Your task to perform on an android device: Open Google Chrome Image 0: 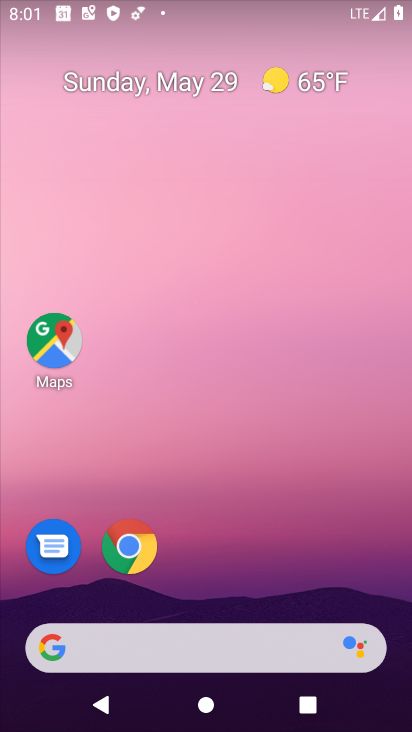
Step 0: press home button
Your task to perform on an android device: Open Google Chrome Image 1: 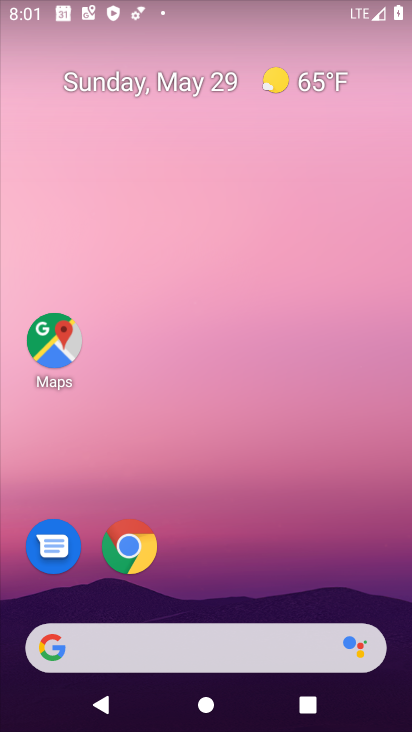
Step 1: click (128, 542)
Your task to perform on an android device: Open Google Chrome Image 2: 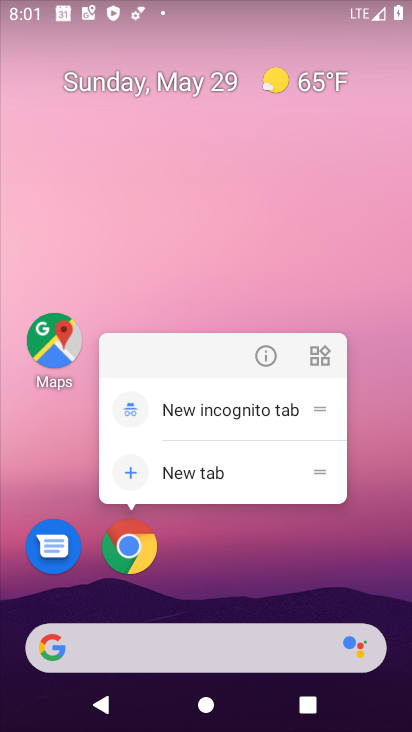
Step 2: click (138, 551)
Your task to perform on an android device: Open Google Chrome Image 3: 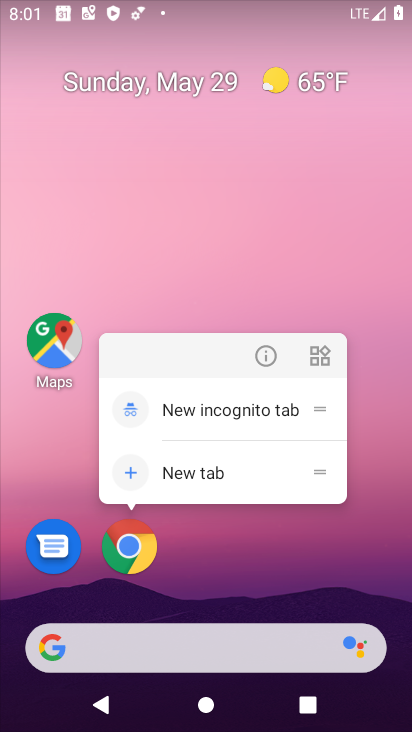
Step 3: click (131, 558)
Your task to perform on an android device: Open Google Chrome Image 4: 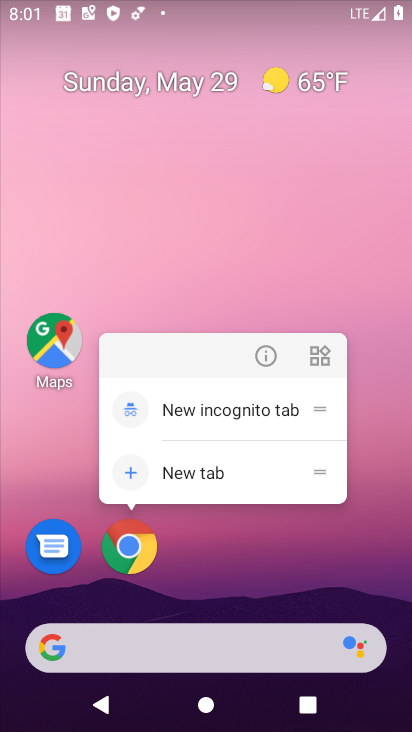
Step 4: click (122, 549)
Your task to perform on an android device: Open Google Chrome Image 5: 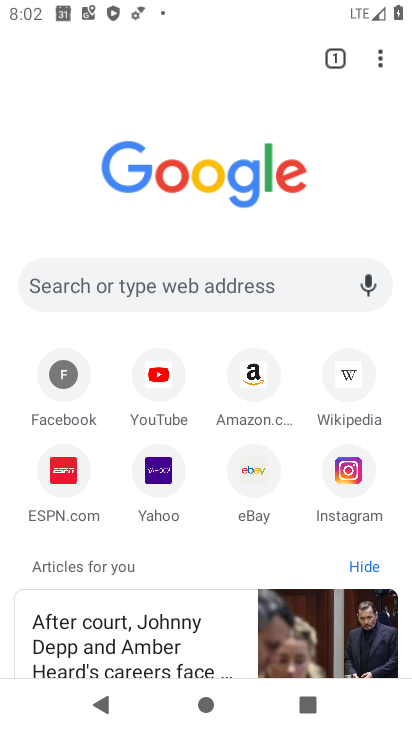
Step 5: task complete